Your task to perform on an android device: turn on translation in the chrome app Image 0: 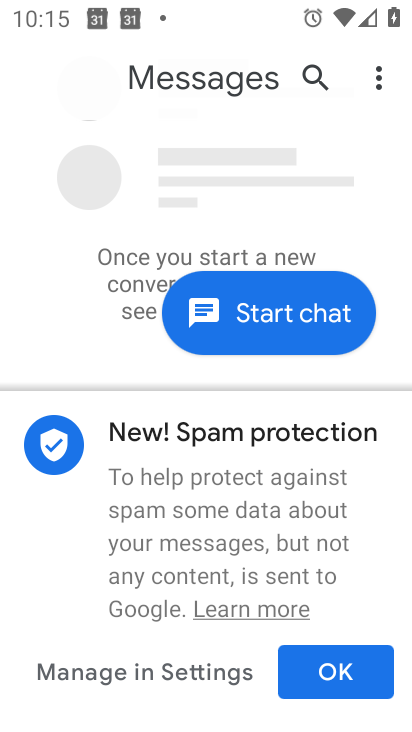
Step 0: press home button
Your task to perform on an android device: turn on translation in the chrome app Image 1: 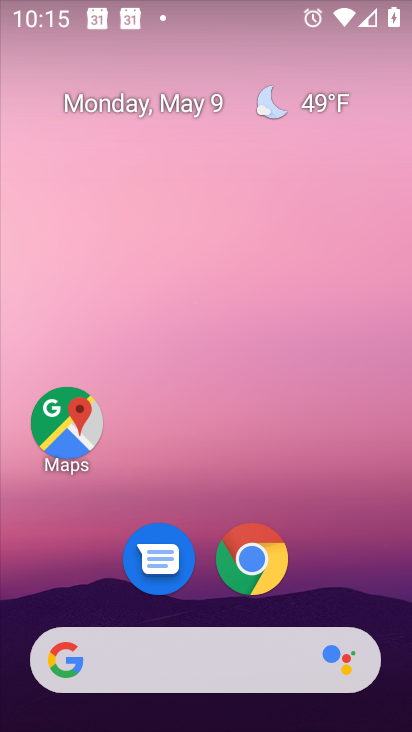
Step 1: click (244, 558)
Your task to perform on an android device: turn on translation in the chrome app Image 2: 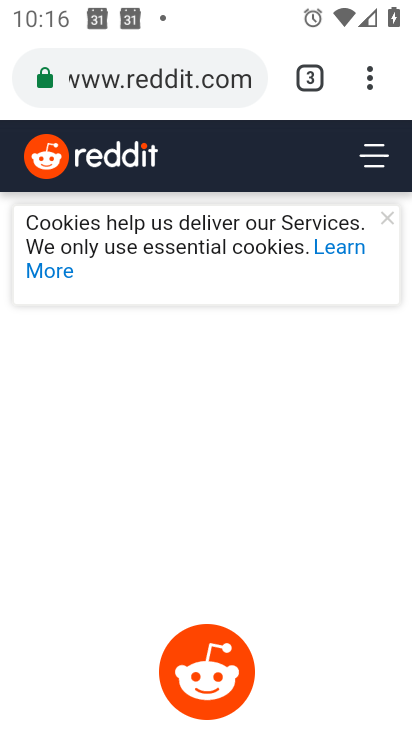
Step 2: click (369, 86)
Your task to perform on an android device: turn on translation in the chrome app Image 3: 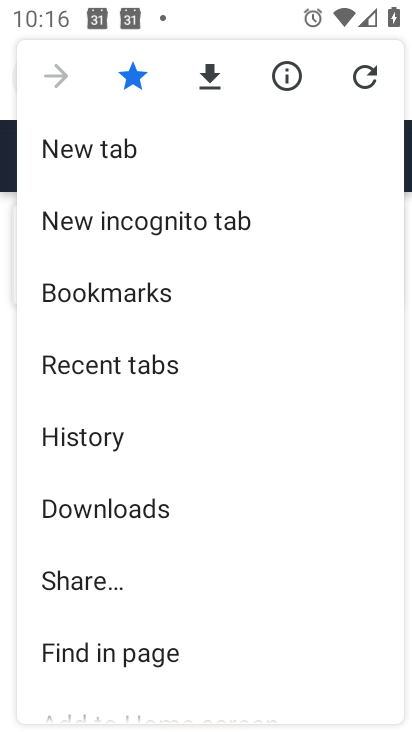
Step 3: drag from (127, 624) to (131, 317)
Your task to perform on an android device: turn on translation in the chrome app Image 4: 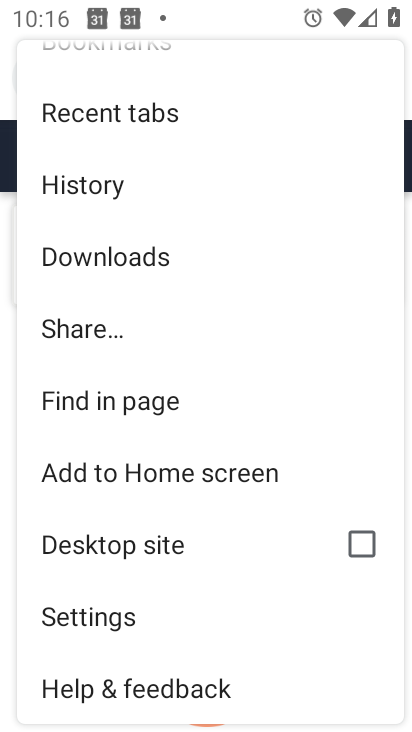
Step 4: click (112, 620)
Your task to perform on an android device: turn on translation in the chrome app Image 5: 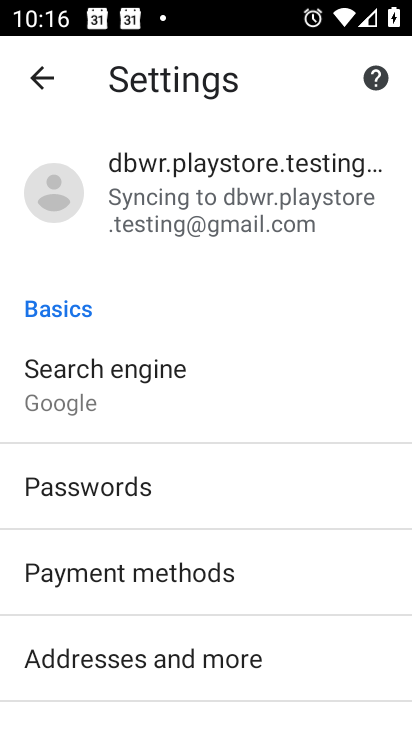
Step 5: drag from (211, 673) to (212, 351)
Your task to perform on an android device: turn on translation in the chrome app Image 6: 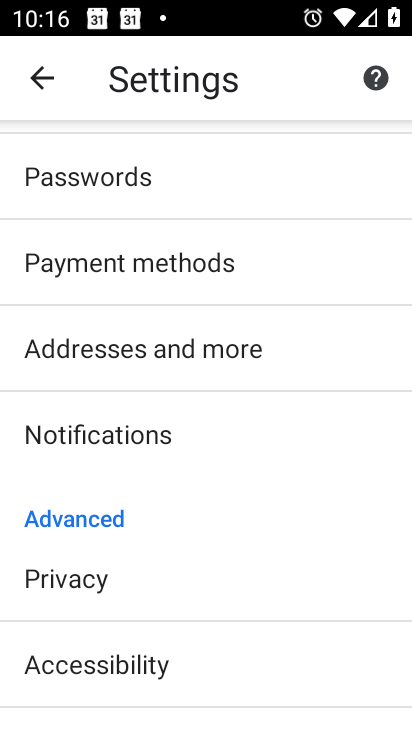
Step 6: drag from (186, 674) to (186, 319)
Your task to perform on an android device: turn on translation in the chrome app Image 7: 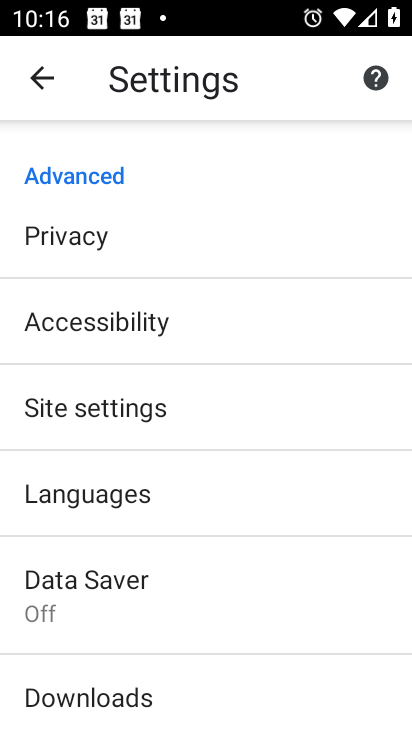
Step 7: click (110, 493)
Your task to perform on an android device: turn on translation in the chrome app Image 8: 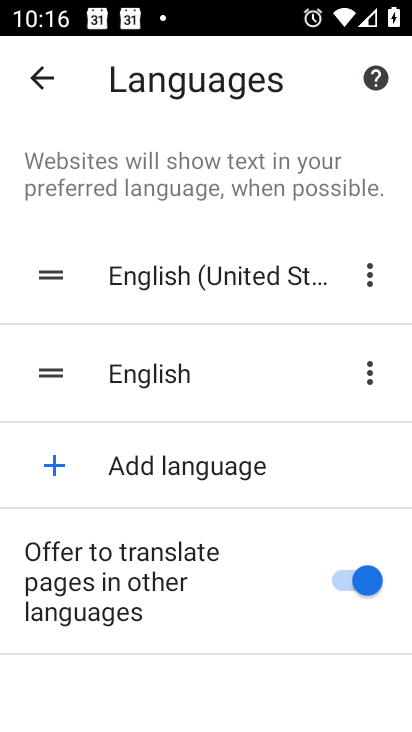
Step 8: task complete